Your task to perform on an android device: open device folders in google photos Image 0: 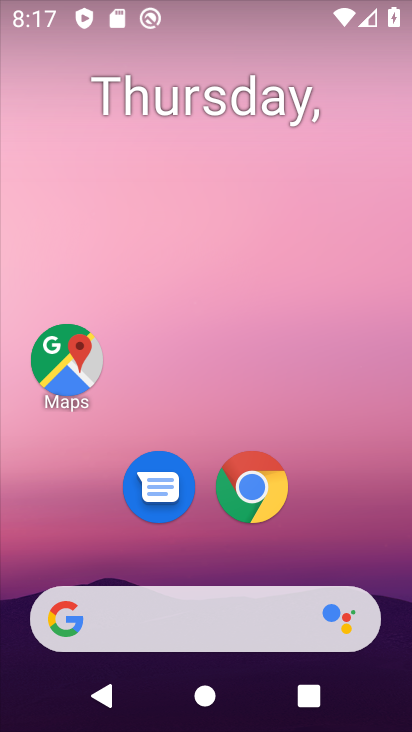
Step 0: drag from (260, 640) to (250, 274)
Your task to perform on an android device: open device folders in google photos Image 1: 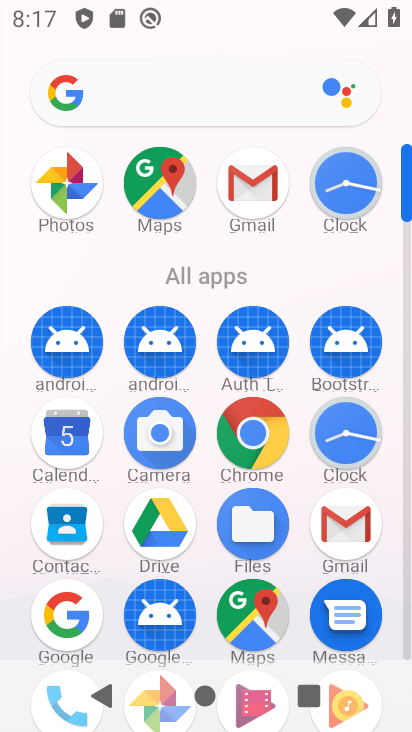
Step 1: drag from (208, 571) to (216, 479)
Your task to perform on an android device: open device folders in google photos Image 2: 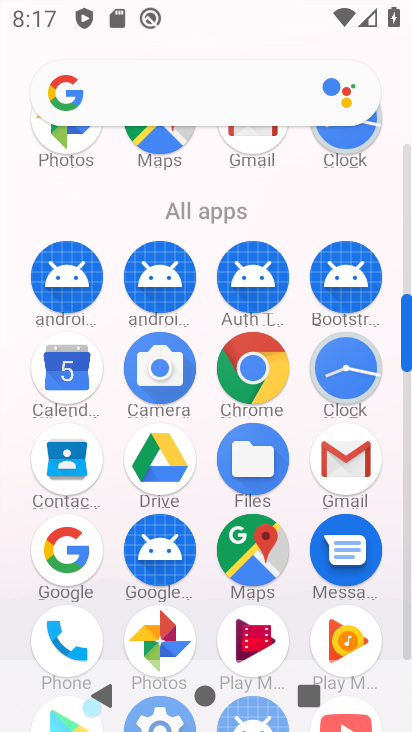
Step 2: click (160, 633)
Your task to perform on an android device: open device folders in google photos Image 3: 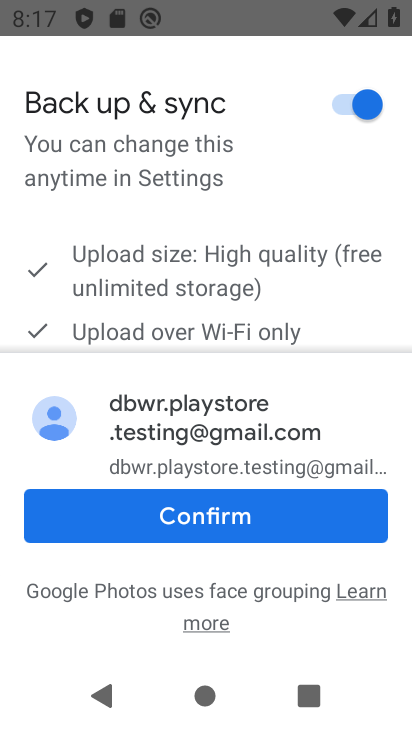
Step 3: click (164, 513)
Your task to perform on an android device: open device folders in google photos Image 4: 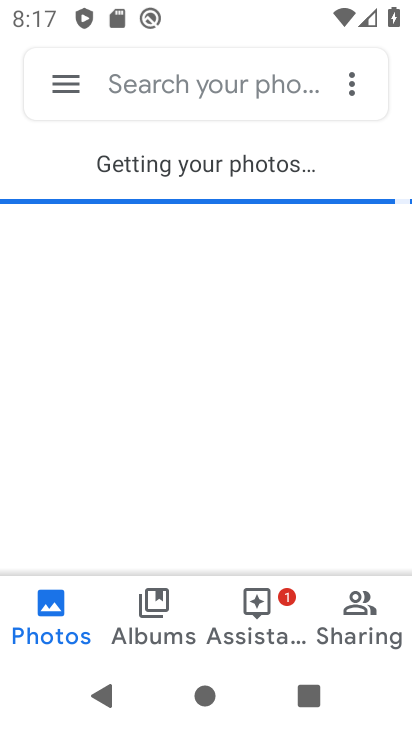
Step 4: click (86, 83)
Your task to perform on an android device: open device folders in google photos Image 5: 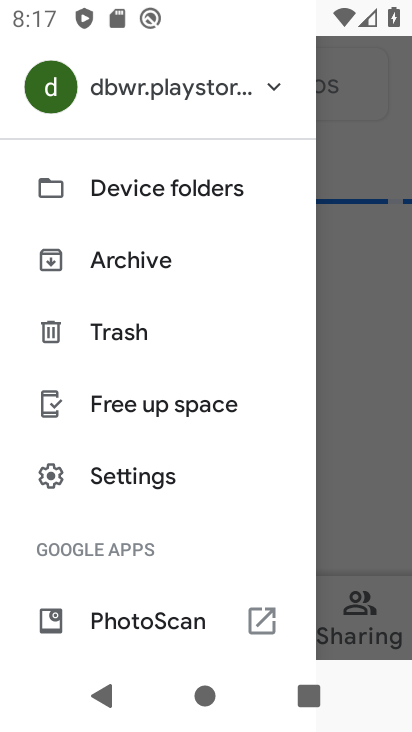
Step 5: click (183, 191)
Your task to perform on an android device: open device folders in google photos Image 6: 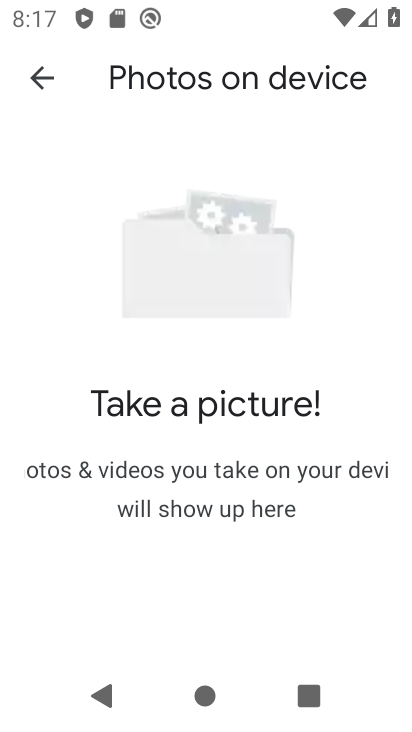
Step 6: task complete